Your task to perform on an android device: Go to Reddit.com Image 0: 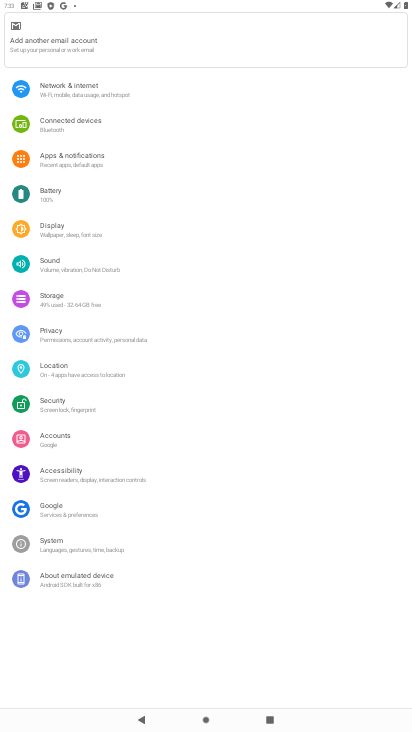
Step 0: press home button
Your task to perform on an android device: Go to Reddit.com Image 1: 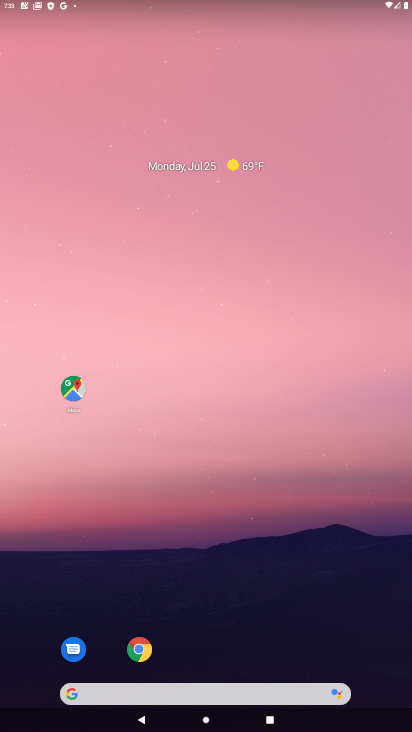
Step 1: drag from (270, 577) to (264, 153)
Your task to perform on an android device: Go to Reddit.com Image 2: 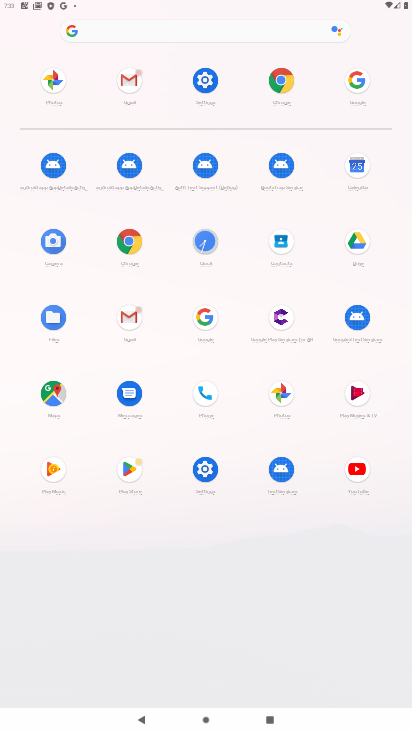
Step 2: click (133, 228)
Your task to perform on an android device: Go to Reddit.com Image 3: 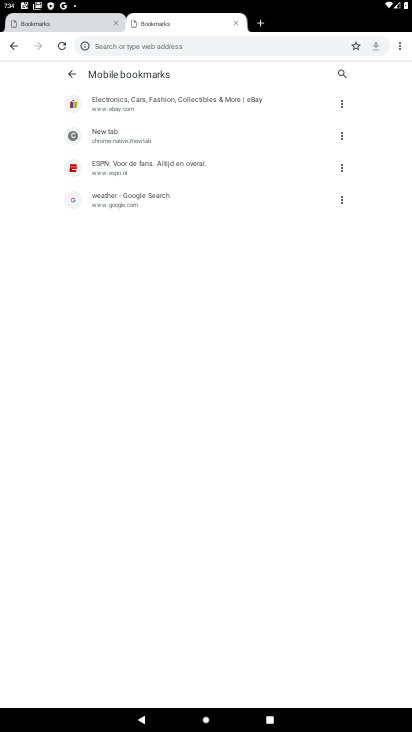
Step 3: click (13, 47)
Your task to perform on an android device: Go to Reddit.com Image 4: 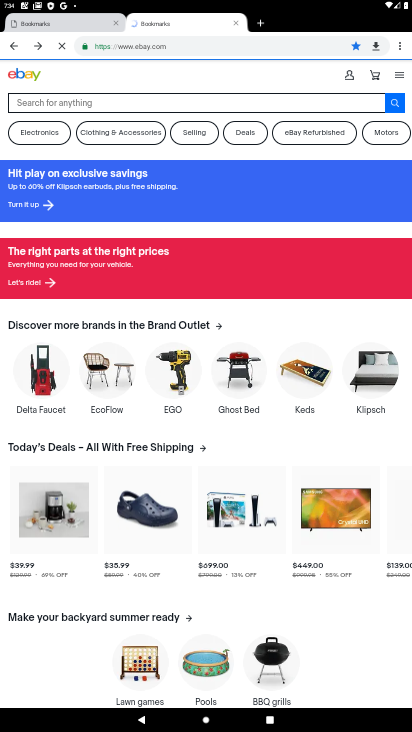
Step 4: click (12, 39)
Your task to perform on an android device: Go to Reddit.com Image 5: 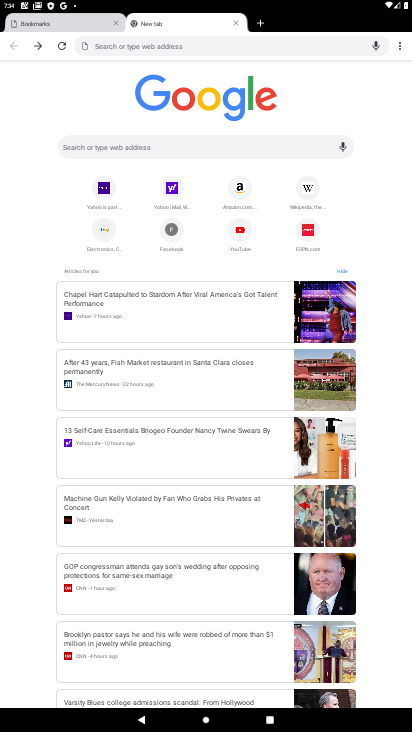
Step 5: click (124, 135)
Your task to perform on an android device: Go to Reddit.com Image 6: 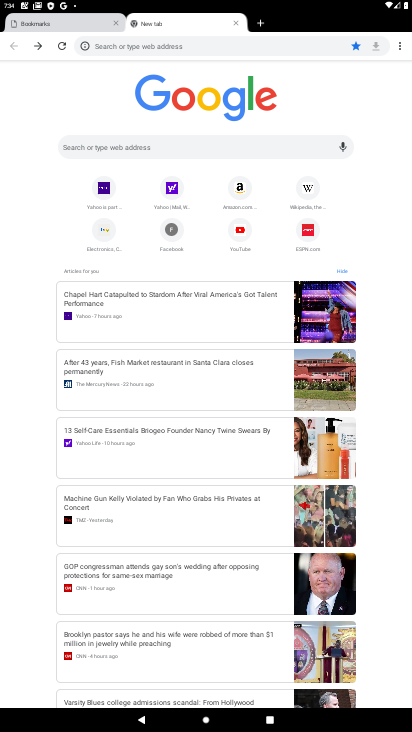
Step 6: click (126, 147)
Your task to perform on an android device: Go to Reddit.com Image 7: 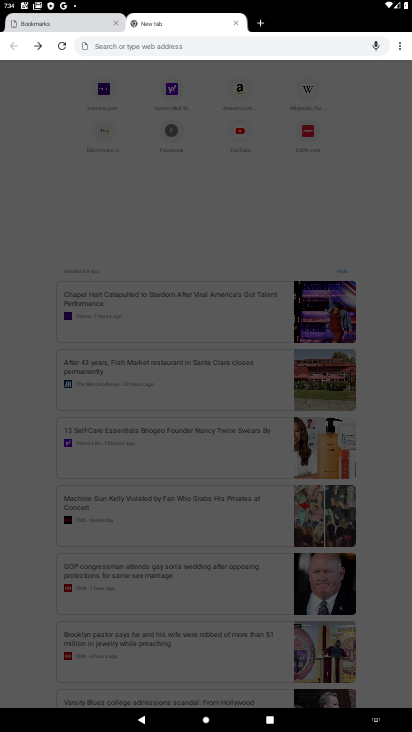
Step 7: type "Reddit.com"
Your task to perform on an android device: Go to Reddit.com Image 8: 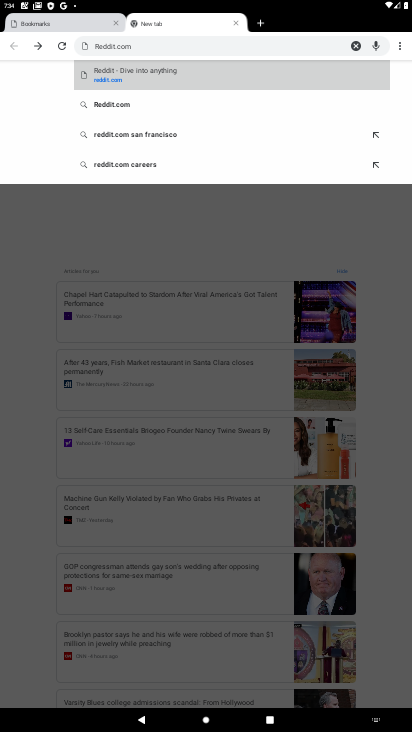
Step 8: click (122, 77)
Your task to perform on an android device: Go to Reddit.com Image 9: 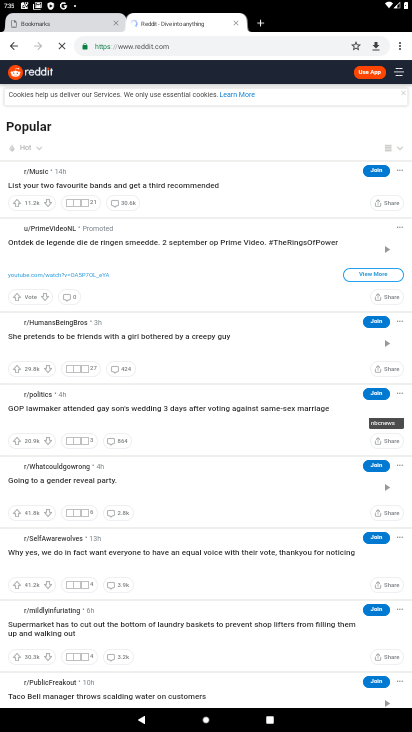
Step 9: task complete